Your task to perform on an android device: create a new album in the google photos Image 0: 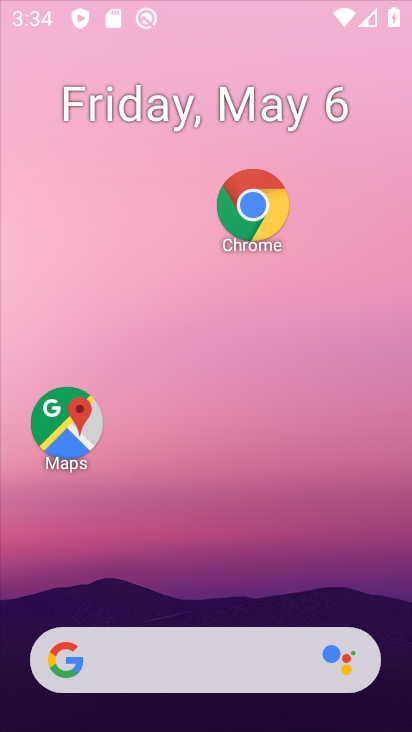
Step 0: drag from (200, 629) to (126, 114)
Your task to perform on an android device: create a new album in the google photos Image 1: 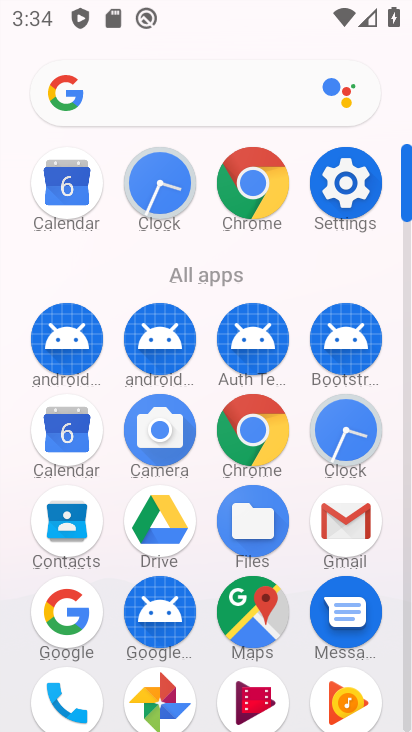
Step 1: click (178, 696)
Your task to perform on an android device: create a new album in the google photos Image 2: 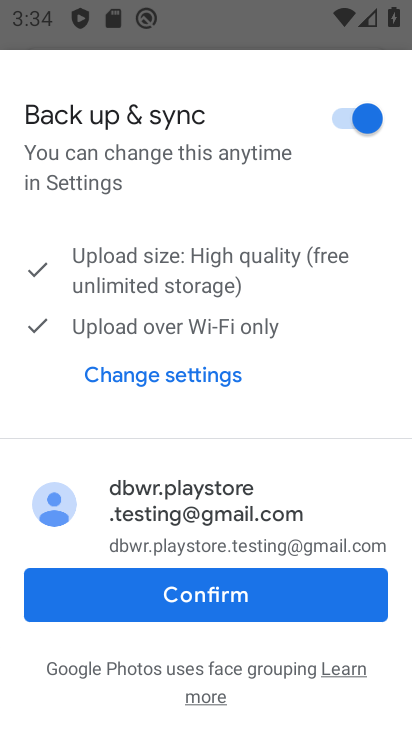
Step 2: click (219, 612)
Your task to perform on an android device: create a new album in the google photos Image 3: 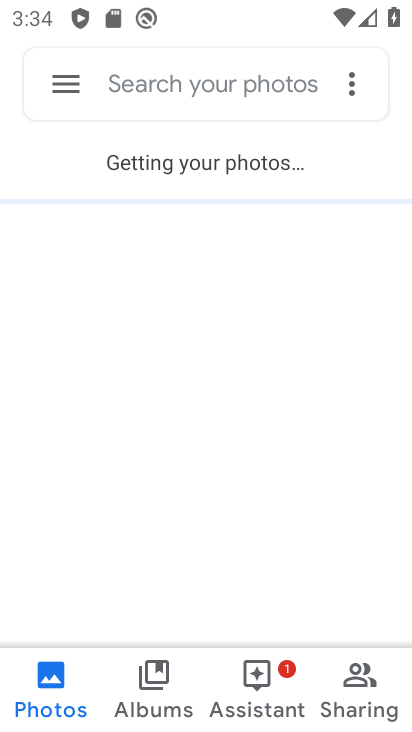
Step 3: click (154, 702)
Your task to perform on an android device: create a new album in the google photos Image 4: 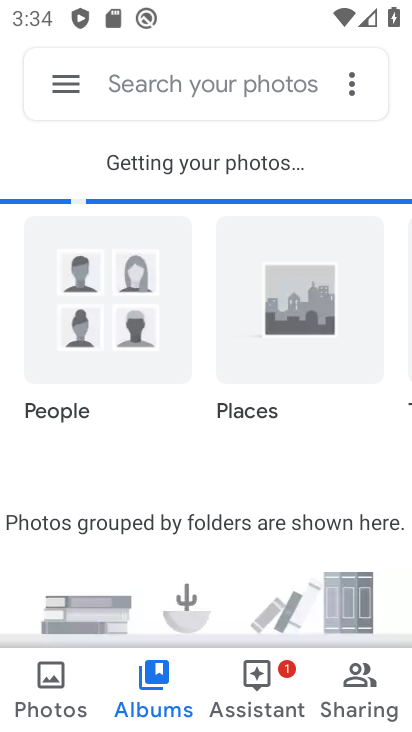
Step 4: drag from (177, 570) to (153, 322)
Your task to perform on an android device: create a new album in the google photos Image 5: 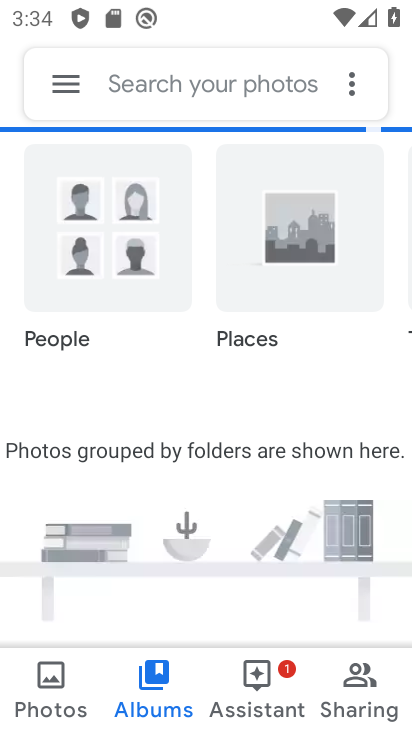
Step 5: click (57, 688)
Your task to perform on an android device: create a new album in the google photos Image 6: 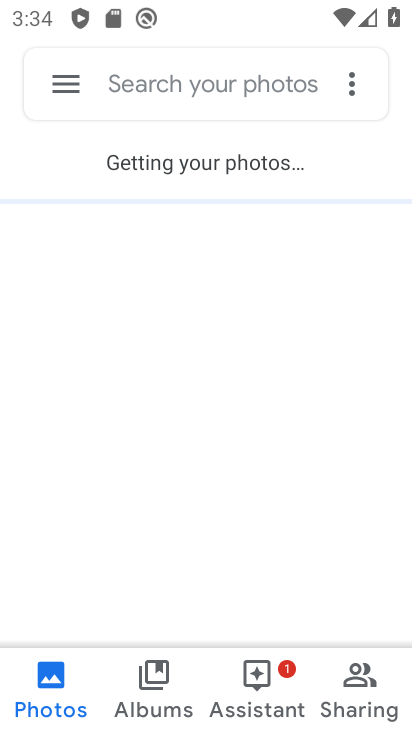
Step 6: drag from (198, 218) to (173, 546)
Your task to perform on an android device: create a new album in the google photos Image 7: 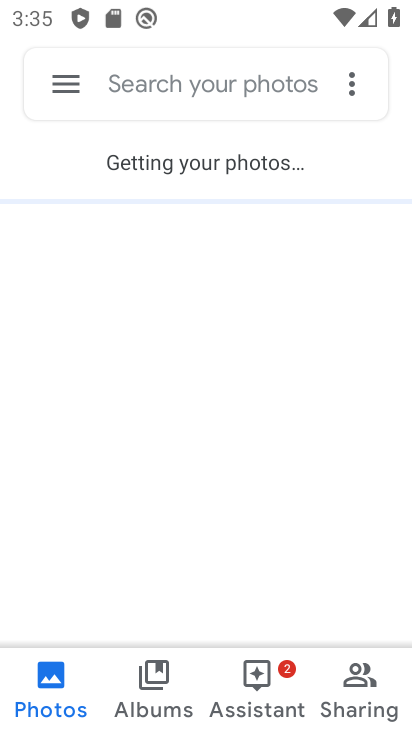
Step 7: click (165, 688)
Your task to perform on an android device: create a new album in the google photos Image 8: 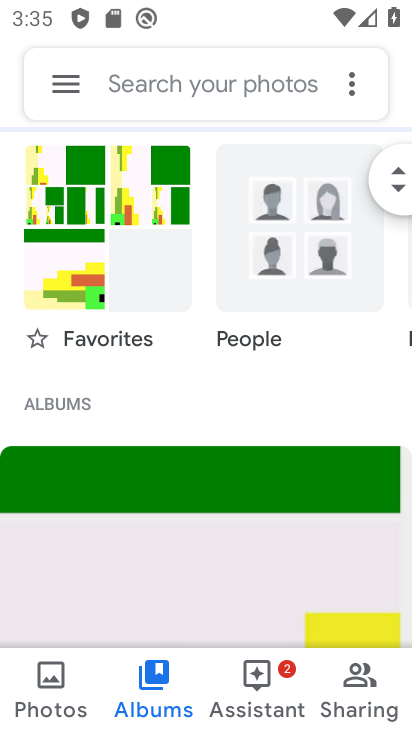
Step 8: click (59, 697)
Your task to perform on an android device: create a new album in the google photos Image 9: 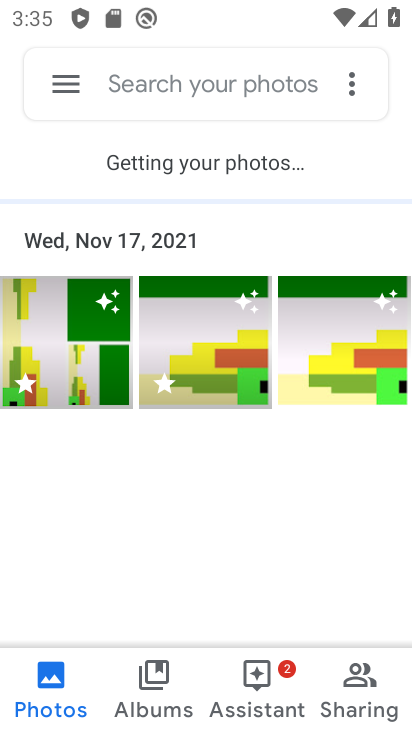
Step 9: click (82, 323)
Your task to perform on an android device: create a new album in the google photos Image 10: 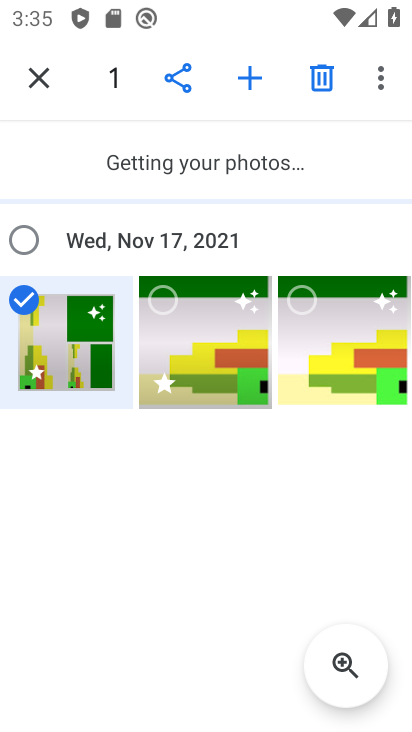
Step 10: click (259, 73)
Your task to perform on an android device: create a new album in the google photos Image 11: 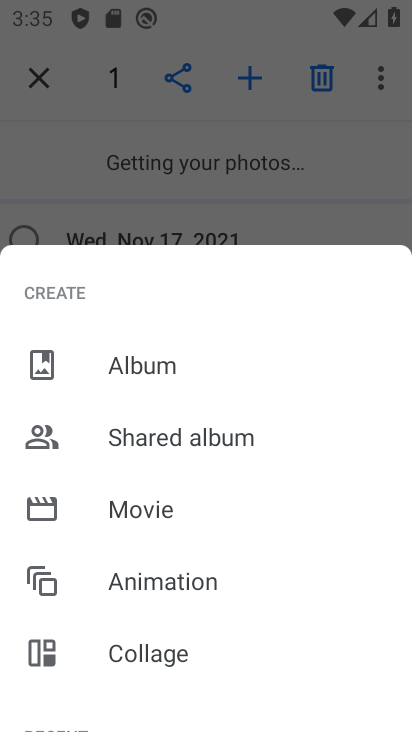
Step 11: click (145, 364)
Your task to perform on an android device: create a new album in the google photos Image 12: 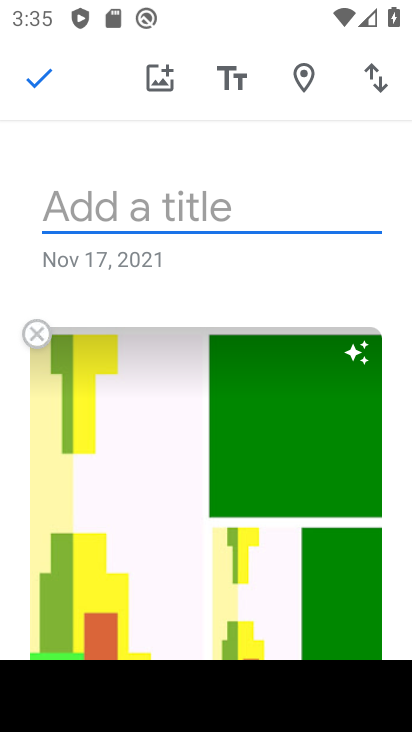
Step 12: type "hn"
Your task to perform on an android device: create a new album in the google photos Image 13: 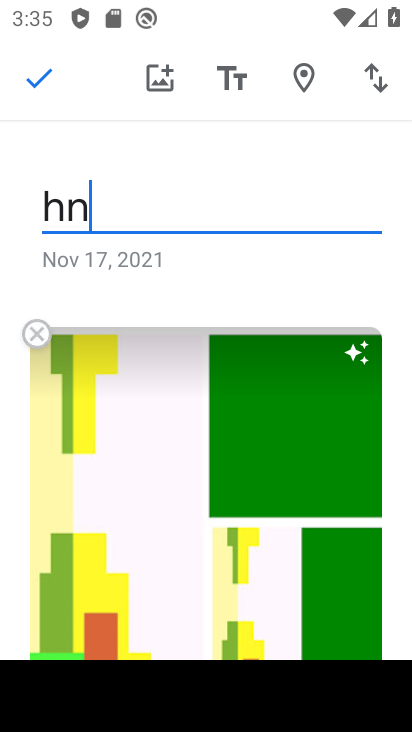
Step 13: type ""
Your task to perform on an android device: create a new album in the google photos Image 14: 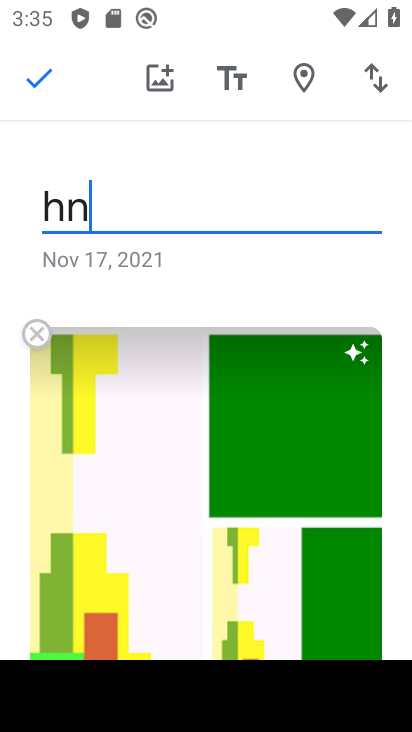
Step 14: click (34, 61)
Your task to perform on an android device: create a new album in the google photos Image 15: 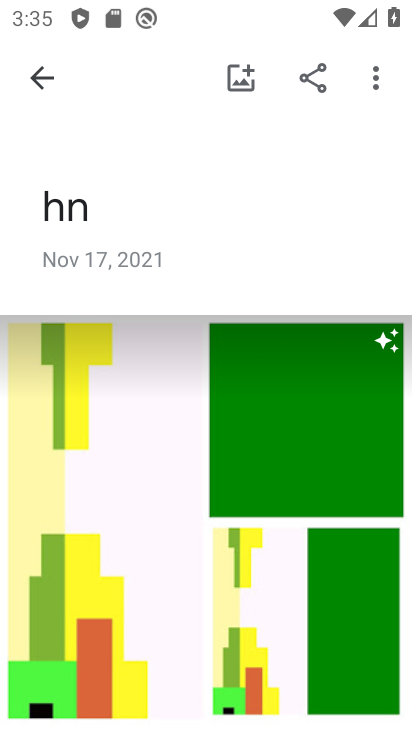
Step 15: task complete